Your task to perform on an android device: change alarm snooze length Image 0: 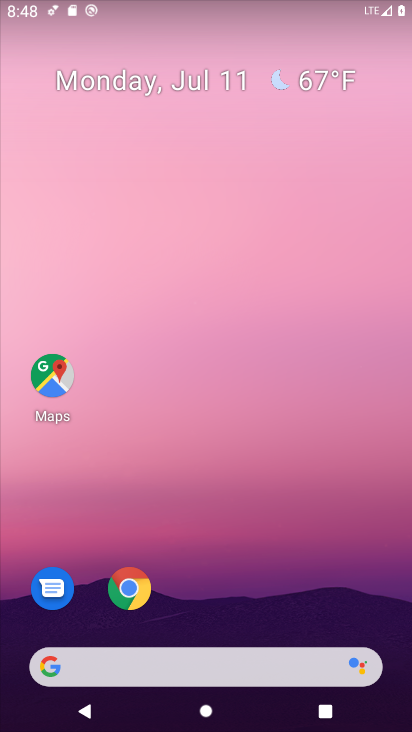
Step 0: drag from (298, 515) to (328, 0)
Your task to perform on an android device: change alarm snooze length Image 1: 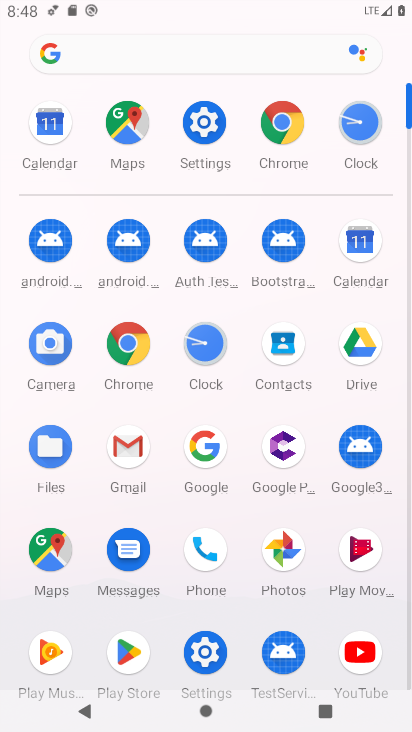
Step 1: click (374, 106)
Your task to perform on an android device: change alarm snooze length Image 2: 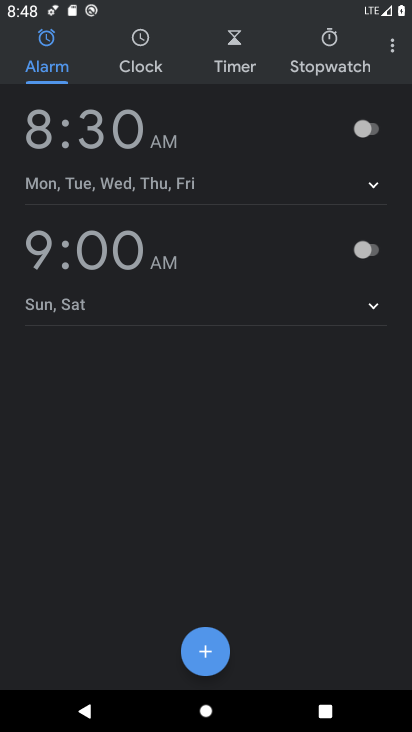
Step 2: click (386, 43)
Your task to perform on an android device: change alarm snooze length Image 3: 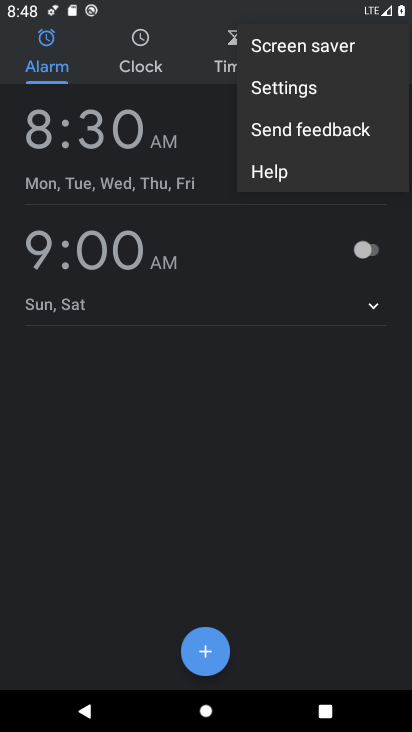
Step 3: click (337, 88)
Your task to perform on an android device: change alarm snooze length Image 4: 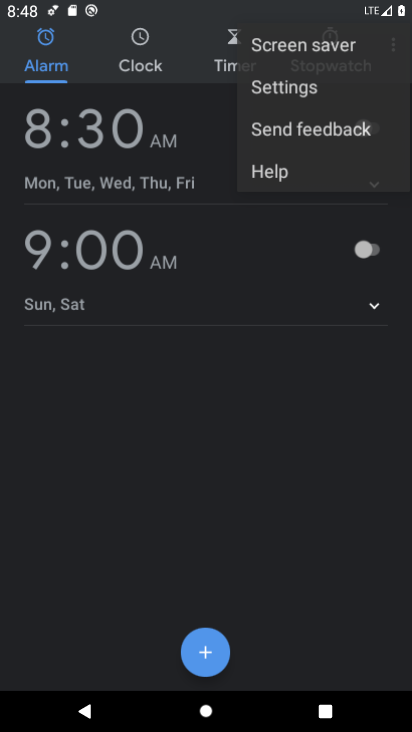
Step 4: click (337, 88)
Your task to perform on an android device: change alarm snooze length Image 5: 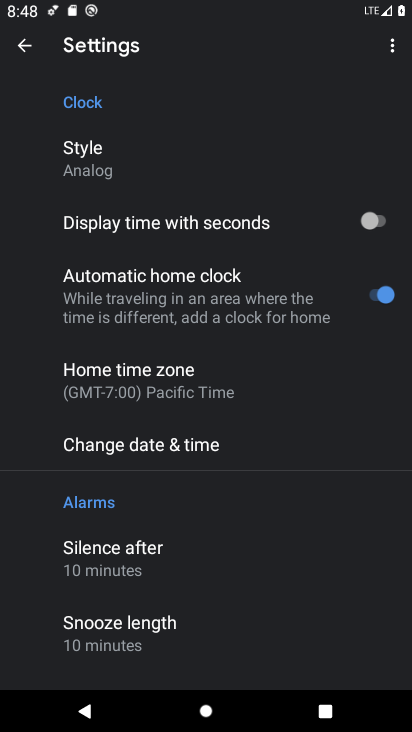
Step 5: click (134, 641)
Your task to perform on an android device: change alarm snooze length Image 6: 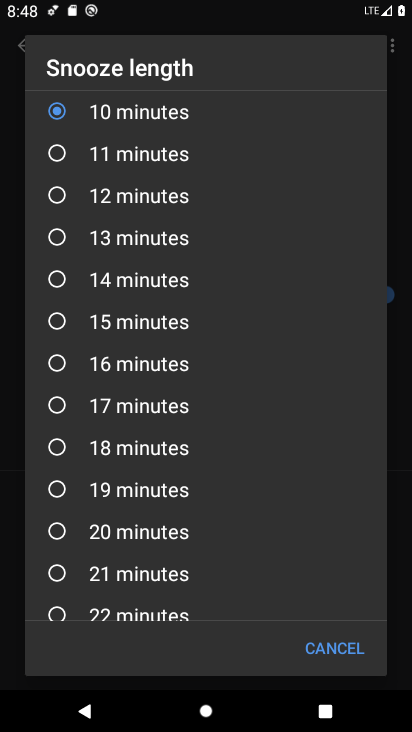
Step 6: click (169, 160)
Your task to perform on an android device: change alarm snooze length Image 7: 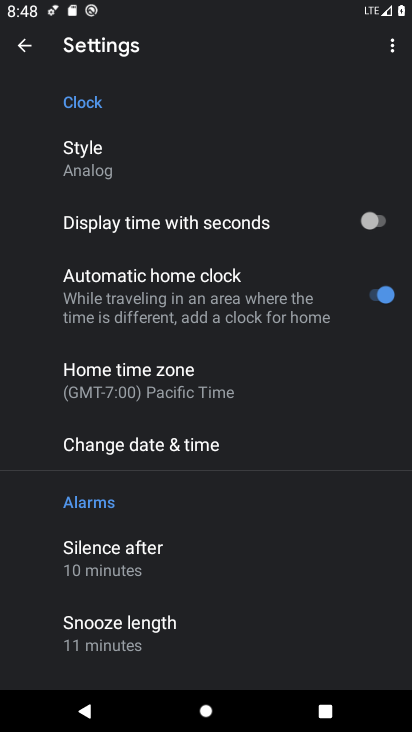
Step 7: task complete